Your task to perform on an android device: see tabs open on other devices in the chrome app Image 0: 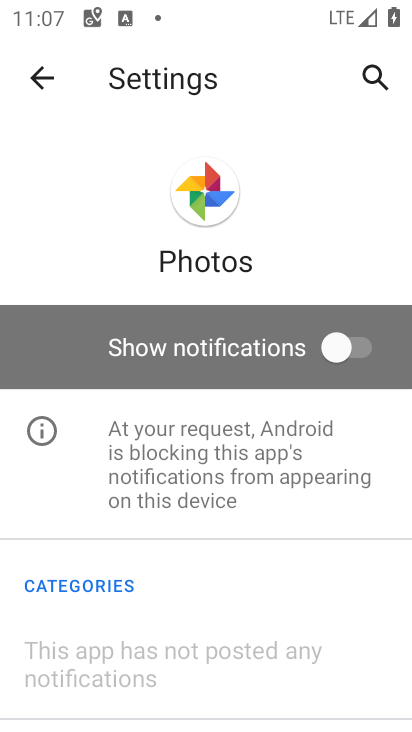
Step 0: press home button
Your task to perform on an android device: see tabs open on other devices in the chrome app Image 1: 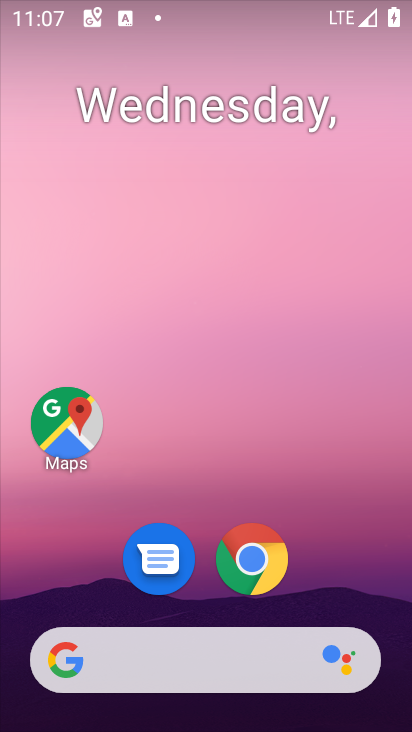
Step 1: drag from (247, 675) to (331, 214)
Your task to perform on an android device: see tabs open on other devices in the chrome app Image 2: 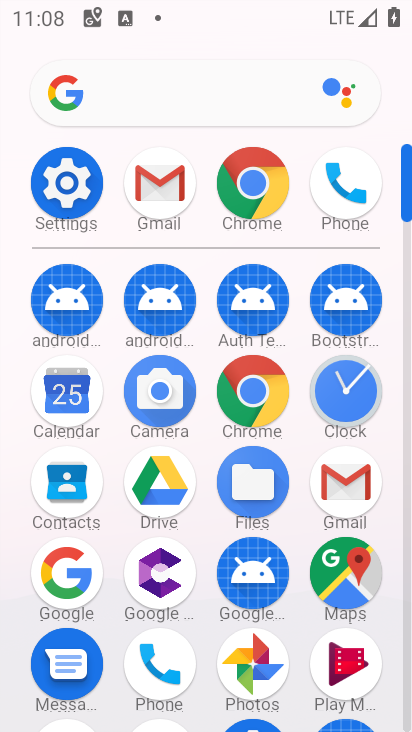
Step 2: click (270, 400)
Your task to perform on an android device: see tabs open on other devices in the chrome app Image 3: 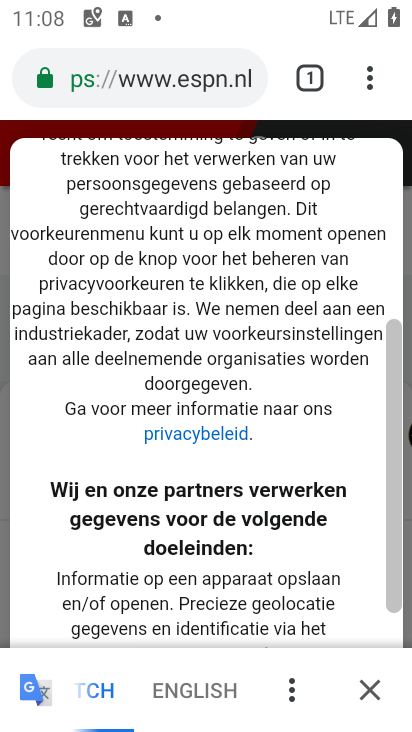
Step 3: task complete